Your task to perform on an android device: Go to Yahoo.com Image 0: 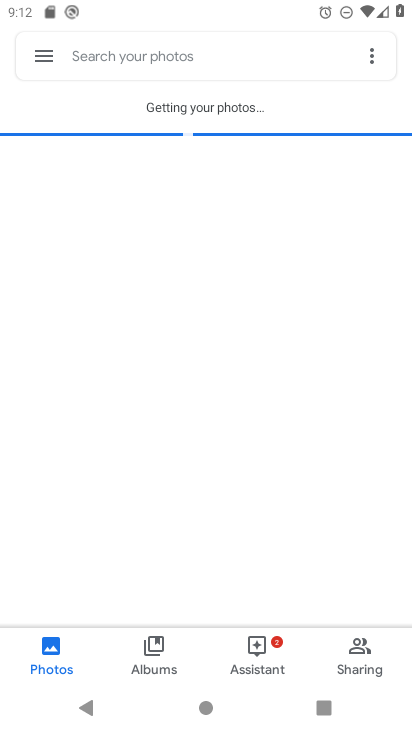
Step 0: press home button
Your task to perform on an android device: Go to Yahoo.com Image 1: 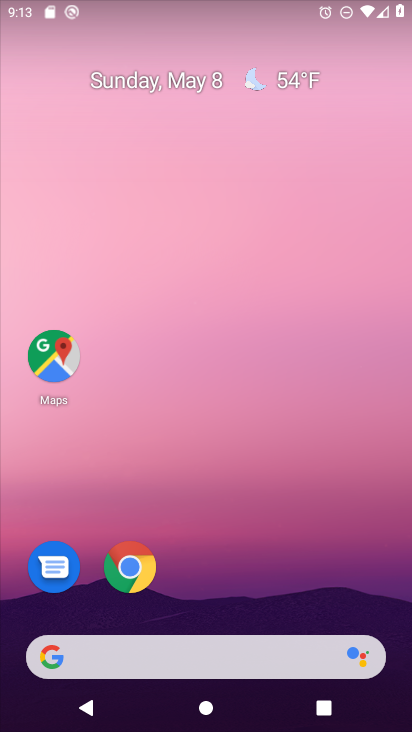
Step 1: click (131, 562)
Your task to perform on an android device: Go to Yahoo.com Image 2: 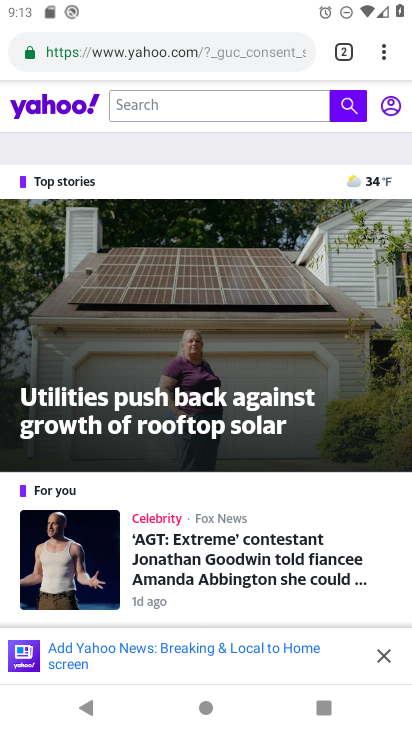
Step 2: task complete